Your task to perform on an android device: Open battery settings Image 0: 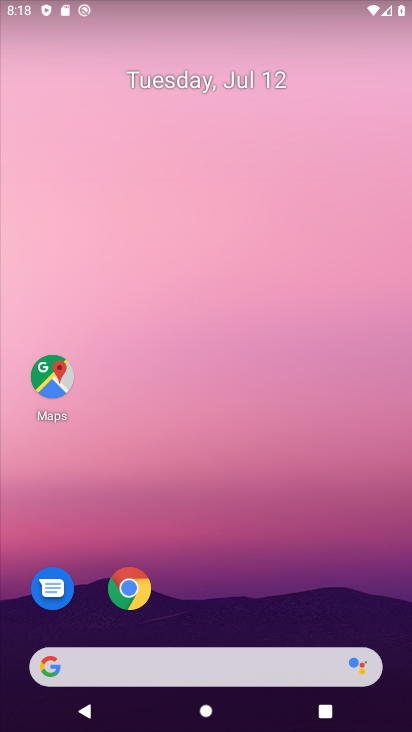
Step 0: drag from (319, 636) to (353, 253)
Your task to perform on an android device: Open battery settings Image 1: 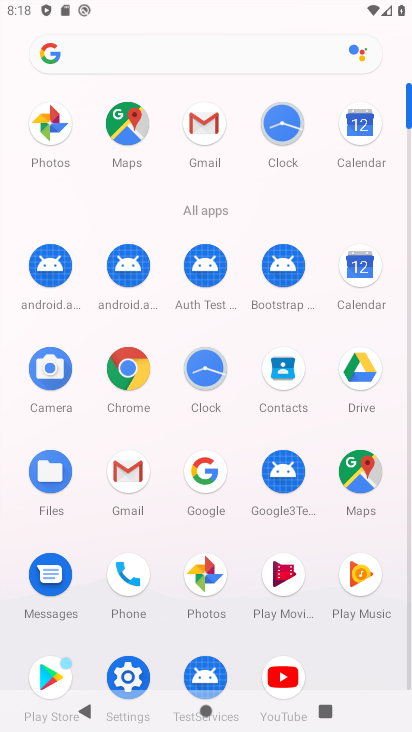
Step 1: click (113, 686)
Your task to perform on an android device: Open battery settings Image 2: 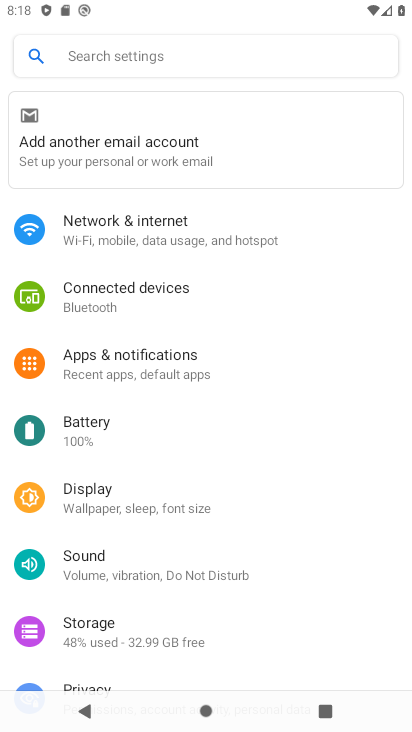
Step 2: click (135, 431)
Your task to perform on an android device: Open battery settings Image 3: 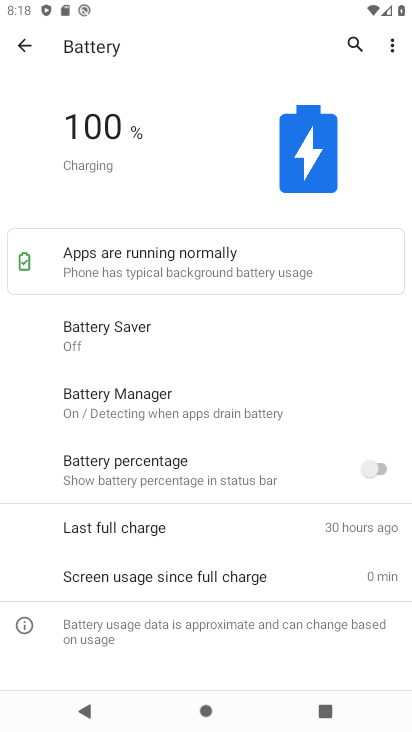
Step 3: task complete